Your task to perform on an android device: open sync settings in chrome Image 0: 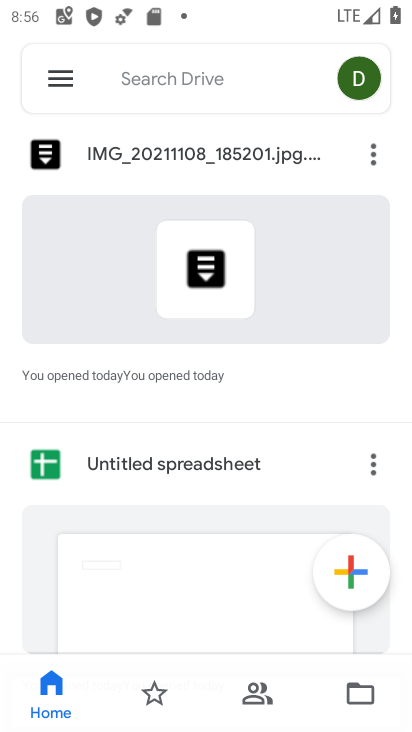
Step 0: press home button
Your task to perform on an android device: open sync settings in chrome Image 1: 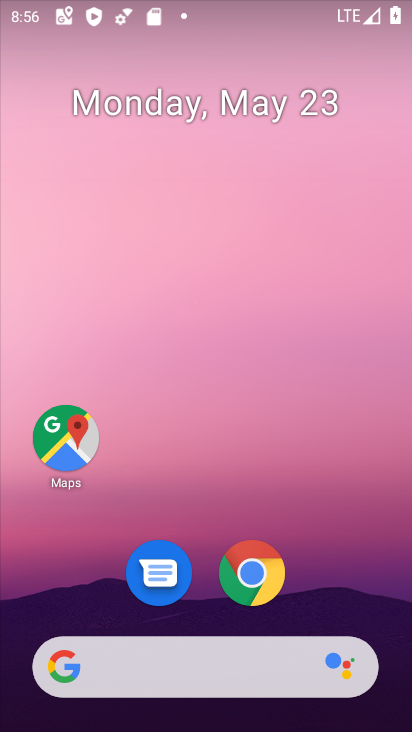
Step 1: click (258, 567)
Your task to perform on an android device: open sync settings in chrome Image 2: 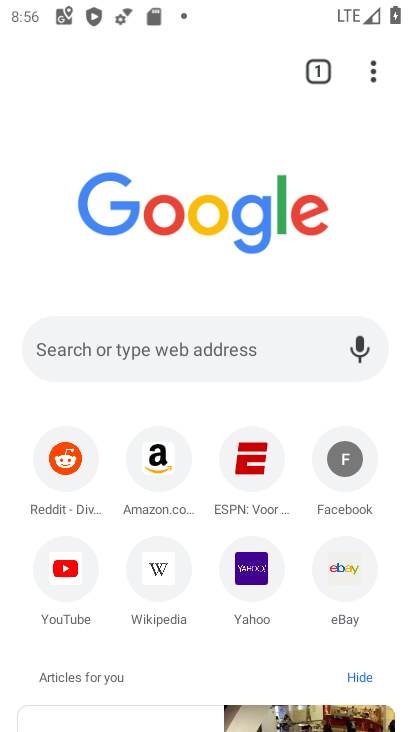
Step 2: click (374, 71)
Your task to perform on an android device: open sync settings in chrome Image 3: 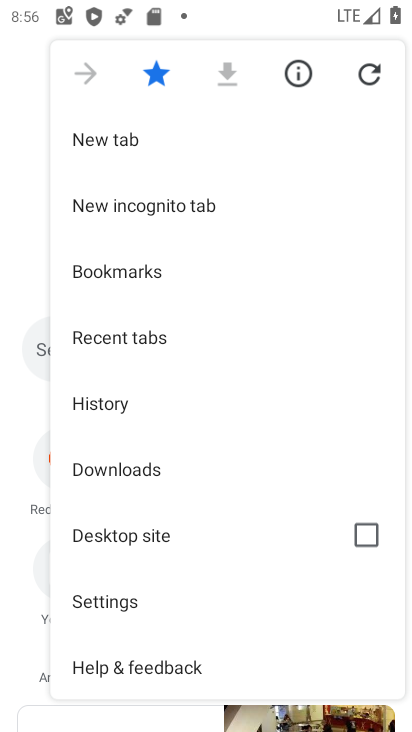
Step 3: click (128, 598)
Your task to perform on an android device: open sync settings in chrome Image 4: 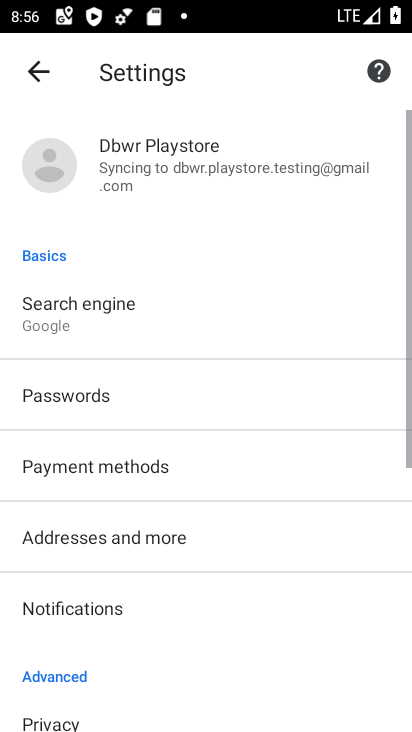
Step 4: click (243, 162)
Your task to perform on an android device: open sync settings in chrome Image 5: 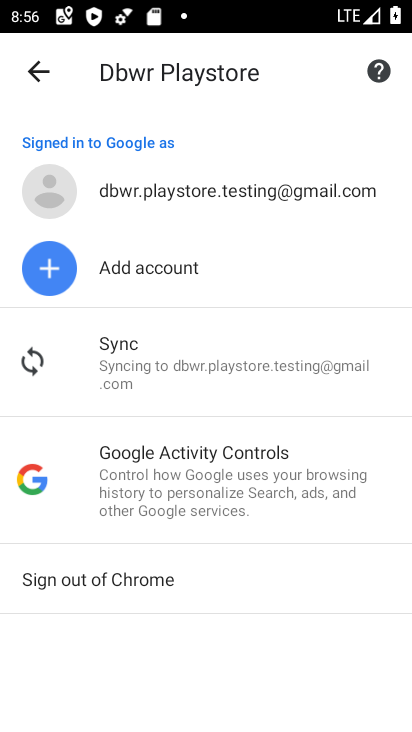
Step 5: click (159, 367)
Your task to perform on an android device: open sync settings in chrome Image 6: 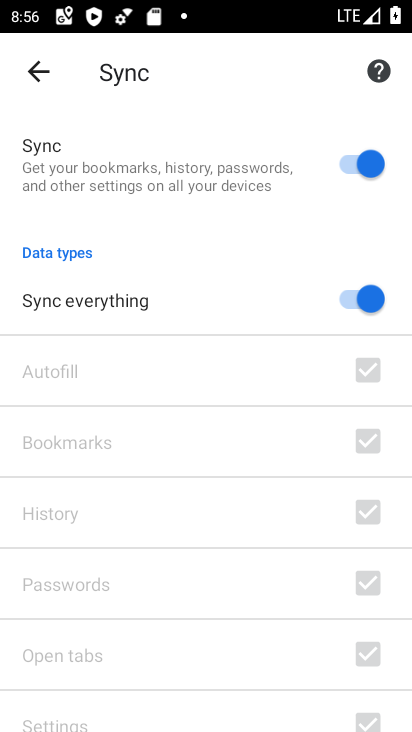
Step 6: task complete